Your task to perform on an android device: open app "Expedia: Hotels, Flights & Car" (install if not already installed) Image 0: 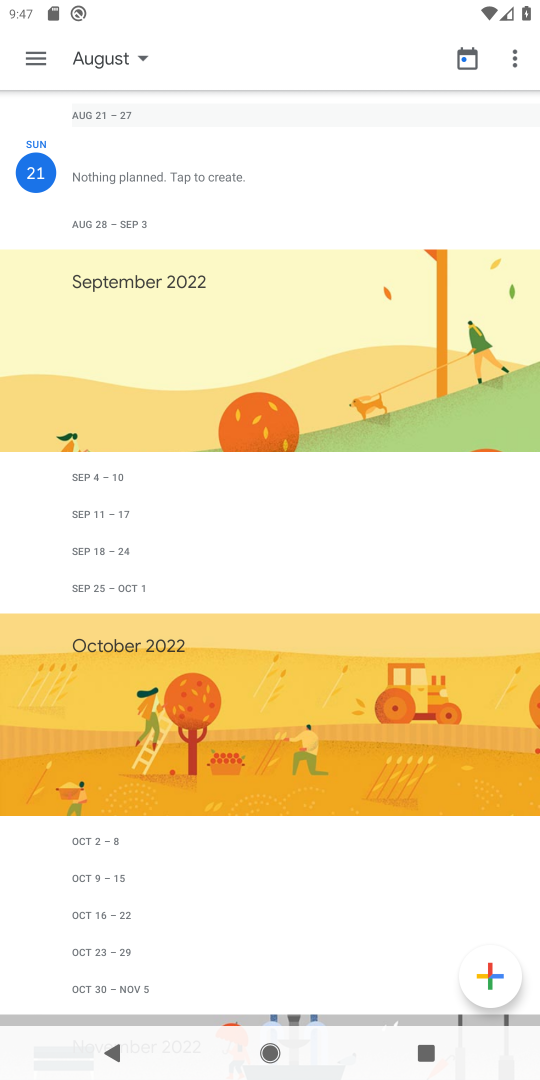
Step 0: press home button
Your task to perform on an android device: open app "Expedia: Hotels, Flights & Car" (install if not already installed) Image 1: 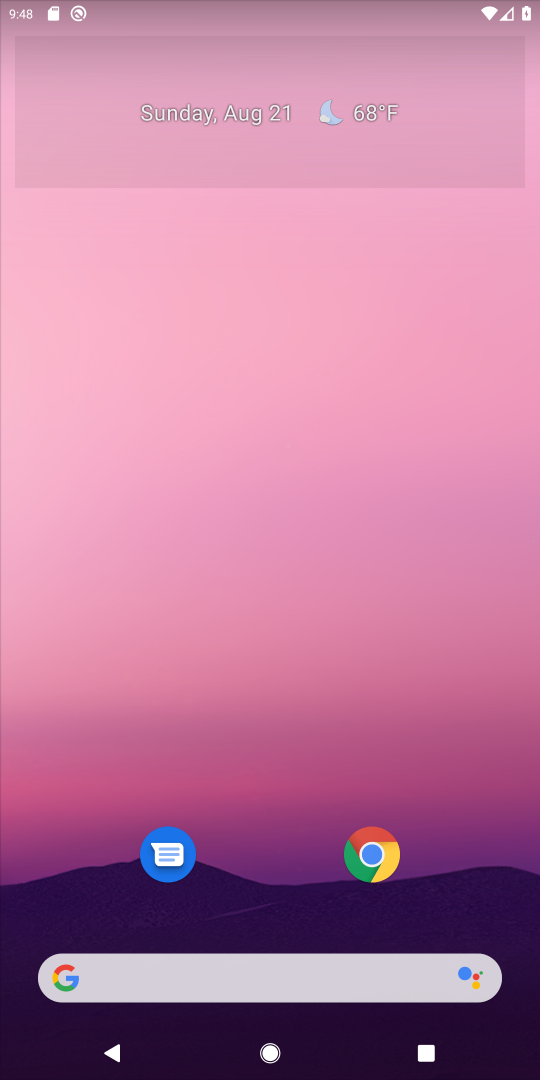
Step 1: drag from (302, 932) to (378, 144)
Your task to perform on an android device: open app "Expedia: Hotels, Flights & Car" (install if not already installed) Image 2: 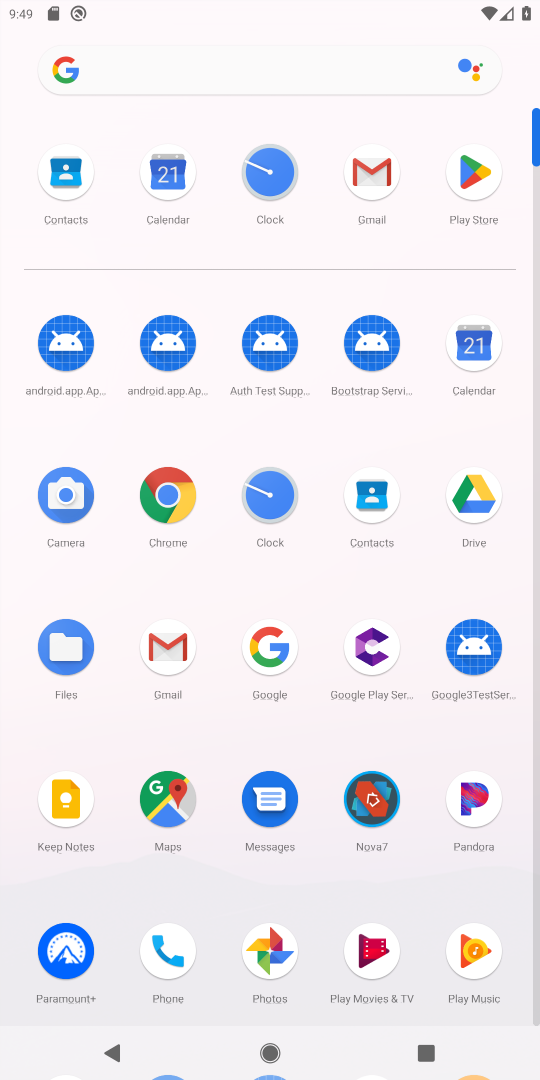
Step 2: click (486, 172)
Your task to perform on an android device: open app "Expedia: Hotels, Flights & Car" (install if not already installed) Image 3: 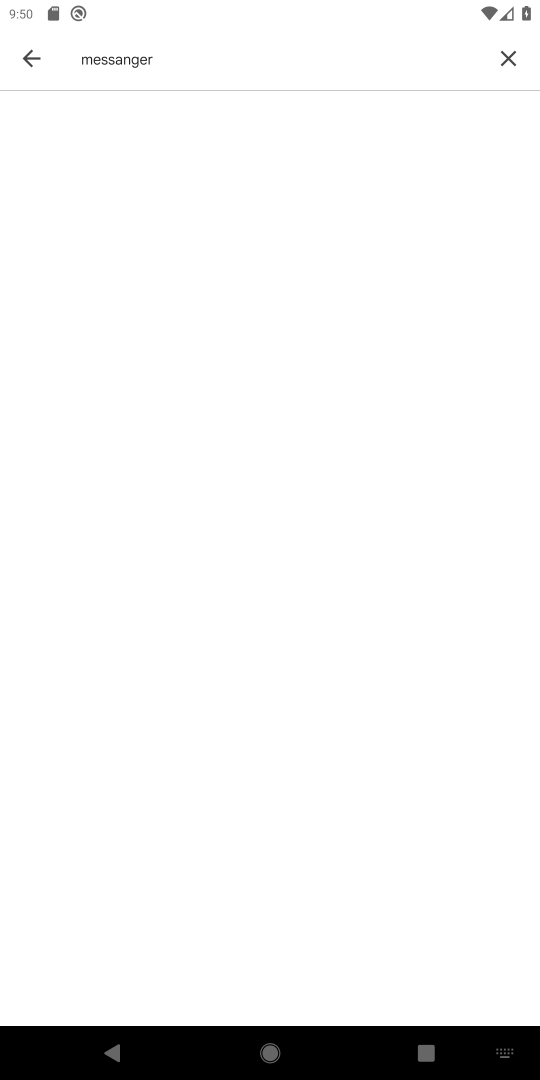
Step 3: click (507, 76)
Your task to perform on an android device: open app "Expedia: Hotels, Flights & Car" (install if not already installed) Image 4: 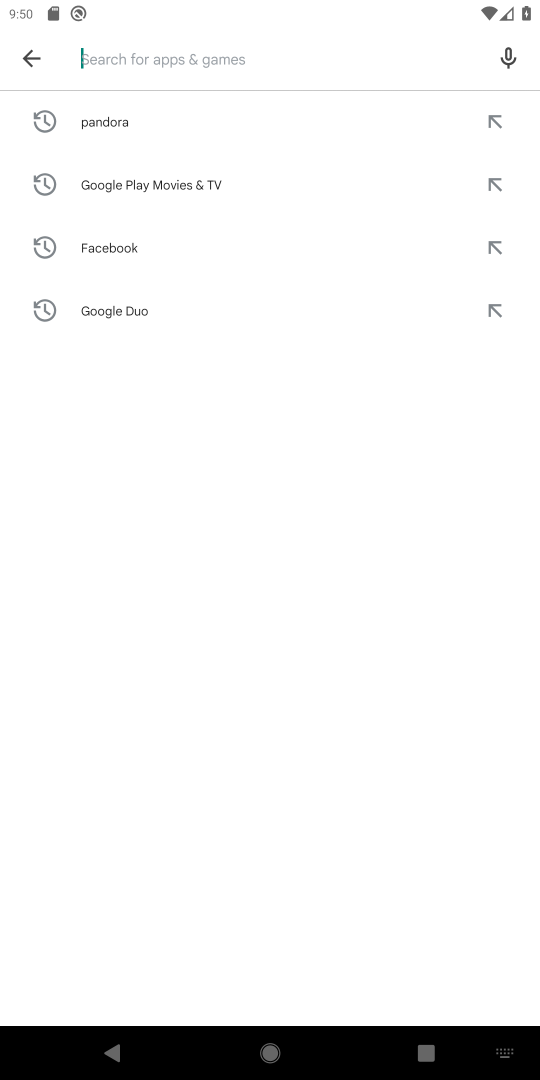
Step 4: type "expedia"
Your task to perform on an android device: open app "Expedia: Hotels, Flights & Car" (install if not already installed) Image 5: 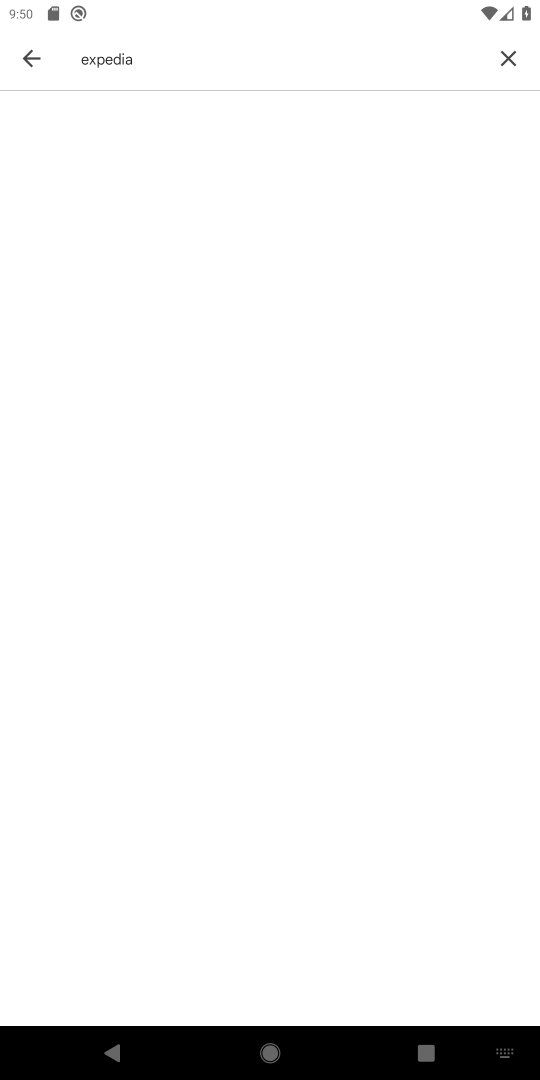
Step 5: task complete